Your task to perform on an android device: open app "Etsy: Buy & Sell Unique Items" (install if not already installed) Image 0: 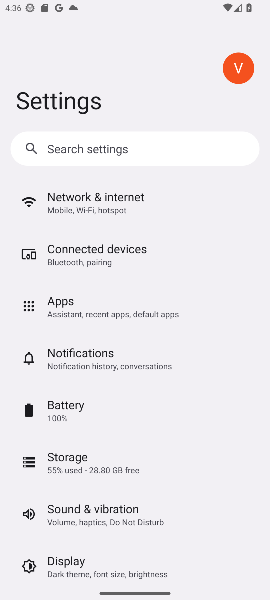
Step 0: press home button
Your task to perform on an android device: open app "Etsy: Buy & Sell Unique Items" (install if not already installed) Image 1: 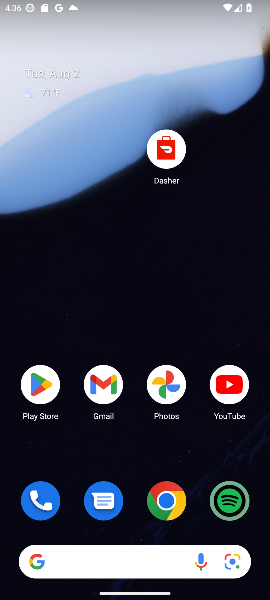
Step 1: click (36, 389)
Your task to perform on an android device: open app "Etsy: Buy & Sell Unique Items" (install if not already installed) Image 2: 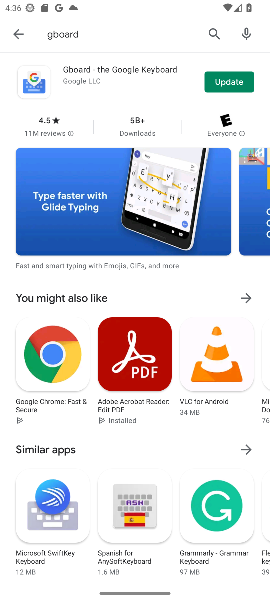
Step 2: click (215, 39)
Your task to perform on an android device: open app "Etsy: Buy & Sell Unique Items" (install if not already installed) Image 3: 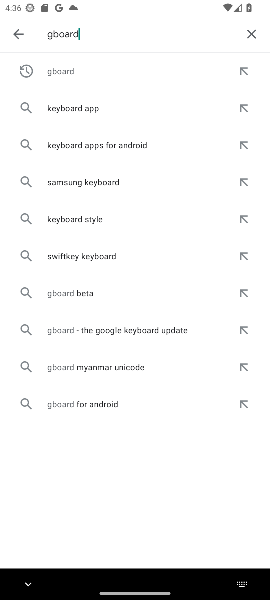
Step 3: click (248, 35)
Your task to perform on an android device: open app "Etsy: Buy & Sell Unique Items" (install if not already installed) Image 4: 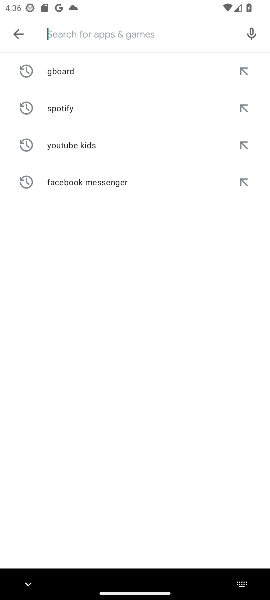
Step 4: type "Etsy: Buy & Sell Unique Items"
Your task to perform on an android device: open app "Etsy: Buy & Sell Unique Items" (install if not already installed) Image 5: 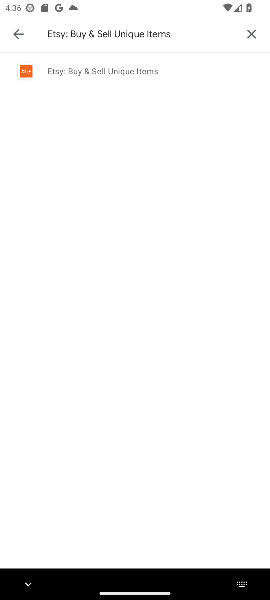
Step 5: click (84, 76)
Your task to perform on an android device: open app "Etsy: Buy & Sell Unique Items" (install if not already installed) Image 6: 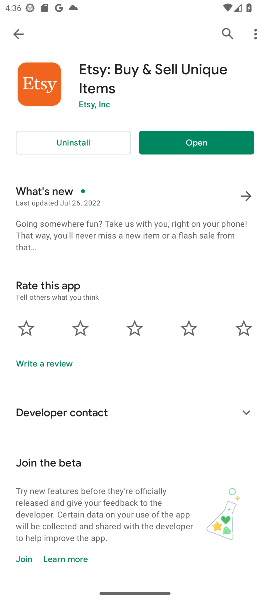
Step 6: click (178, 145)
Your task to perform on an android device: open app "Etsy: Buy & Sell Unique Items" (install if not already installed) Image 7: 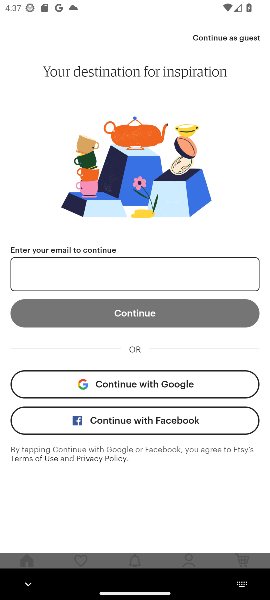
Step 7: task complete